Your task to perform on an android device: Open ESPN.com Image 0: 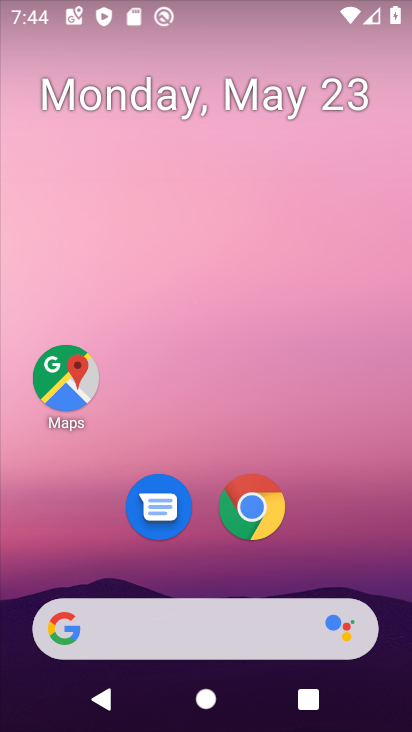
Step 0: drag from (360, 523) to (360, 268)
Your task to perform on an android device: Open ESPN.com Image 1: 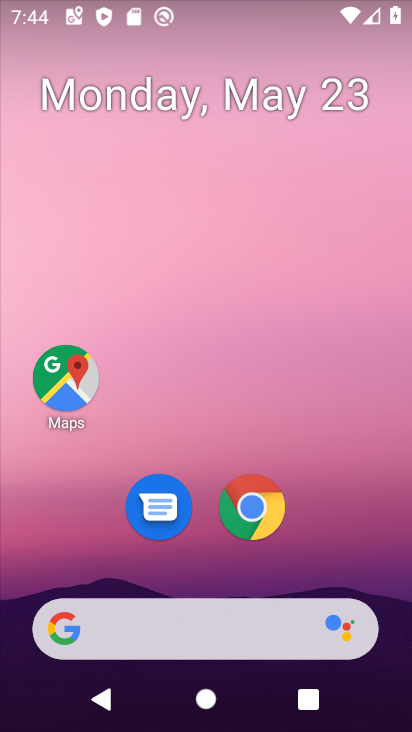
Step 1: drag from (342, 546) to (329, 214)
Your task to perform on an android device: Open ESPN.com Image 2: 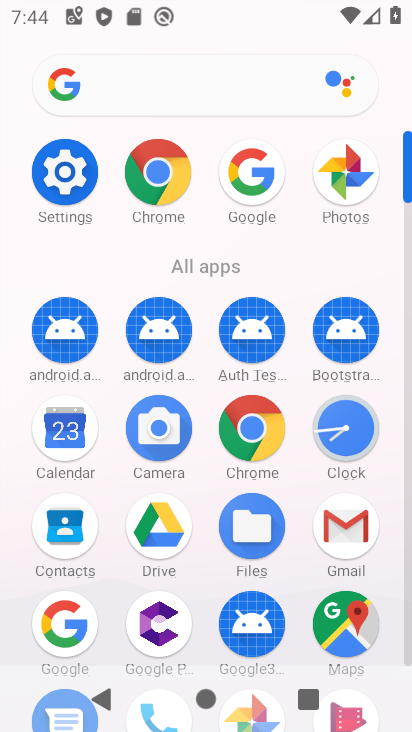
Step 2: click (170, 164)
Your task to perform on an android device: Open ESPN.com Image 3: 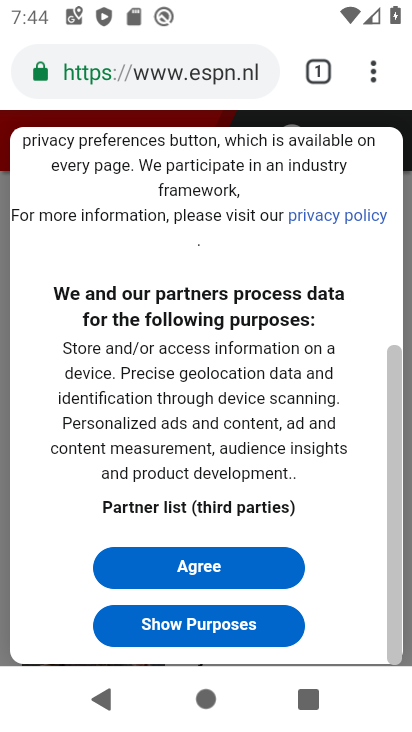
Step 3: click (229, 566)
Your task to perform on an android device: Open ESPN.com Image 4: 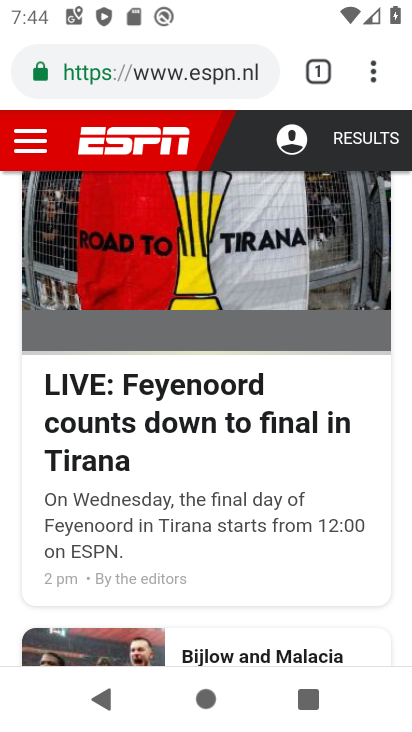
Step 4: click (167, 71)
Your task to perform on an android device: Open ESPN.com Image 5: 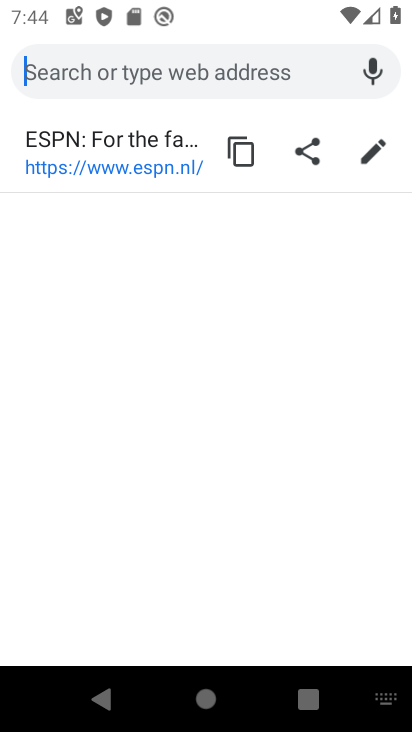
Step 5: click (172, 163)
Your task to perform on an android device: Open ESPN.com Image 6: 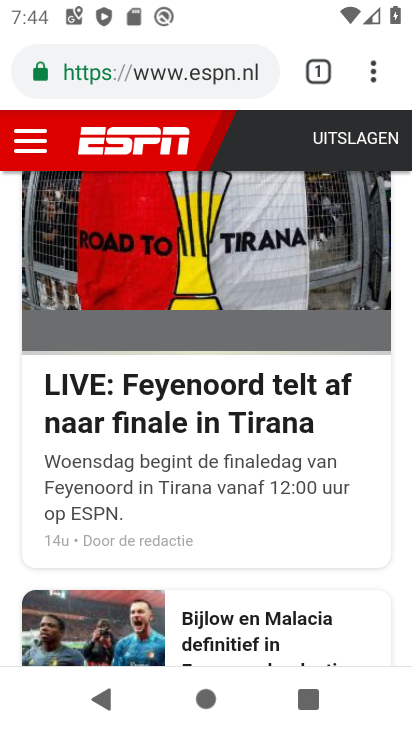
Step 6: task complete